Your task to perform on an android device: What's on my calendar tomorrow? Image 0: 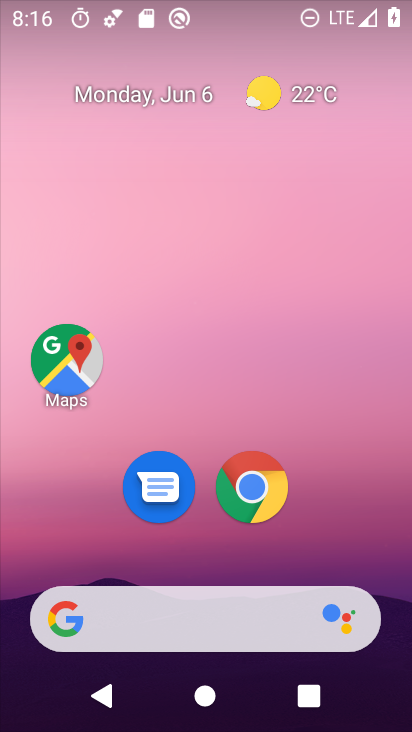
Step 0: drag from (396, 615) to (280, 24)
Your task to perform on an android device: What's on my calendar tomorrow? Image 1: 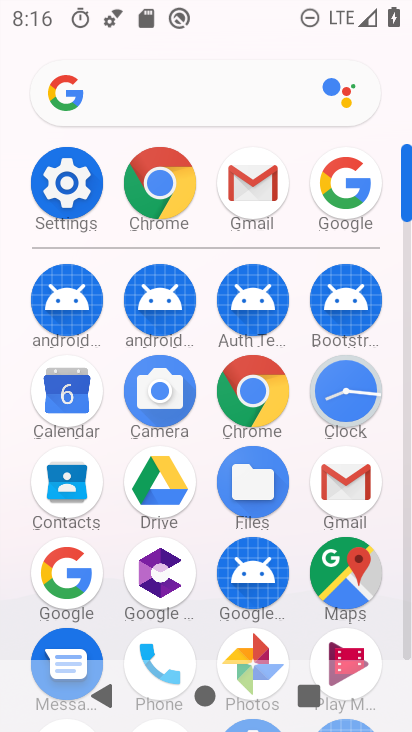
Step 1: click (61, 384)
Your task to perform on an android device: What's on my calendar tomorrow? Image 2: 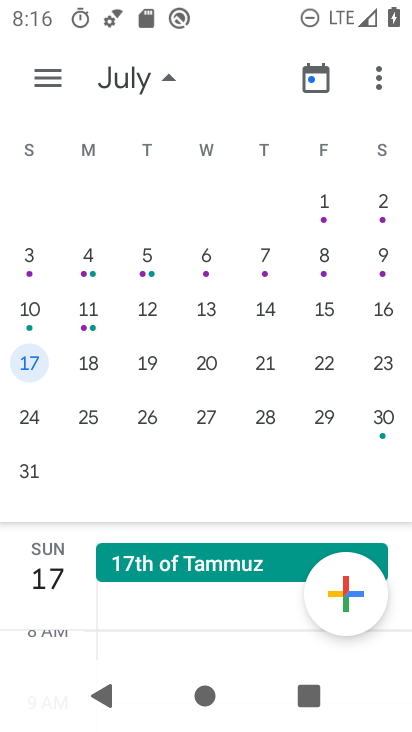
Step 2: click (265, 254)
Your task to perform on an android device: What's on my calendar tomorrow? Image 3: 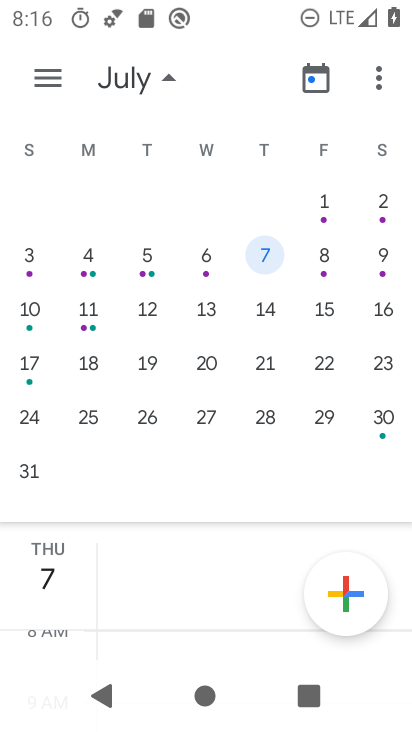
Step 3: click (321, 255)
Your task to perform on an android device: What's on my calendar tomorrow? Image 4: 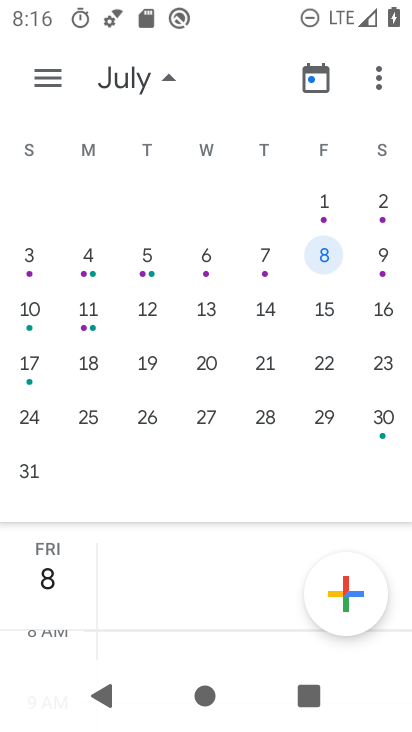
Step 4: drag from (256, 562) to (301, 151)
Your task to perform on an android device: What's on my calendar tomorrow? Image 5: 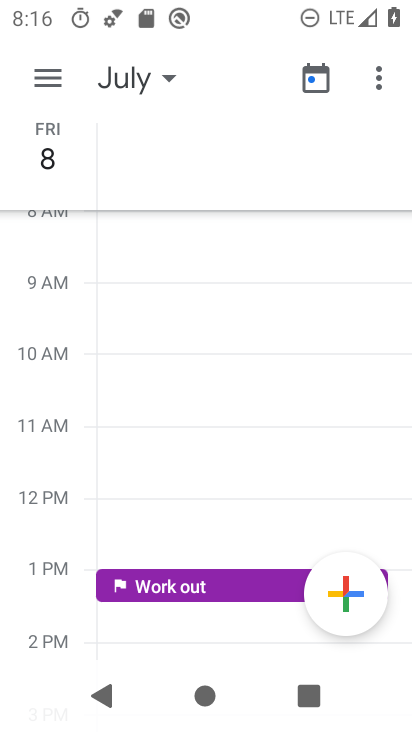
Step 5: click (193, 580)
Your task to perform on an android device: What's on my calendar tomorrow? Image 6: 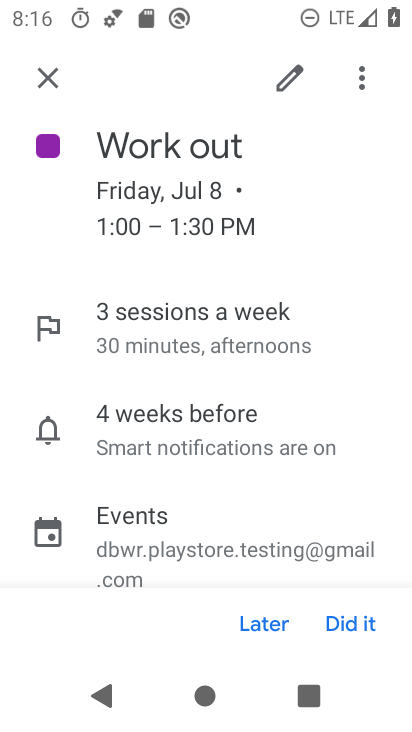
Step 6: task complete